Your task to perform on an android device: set the timer Image 0: 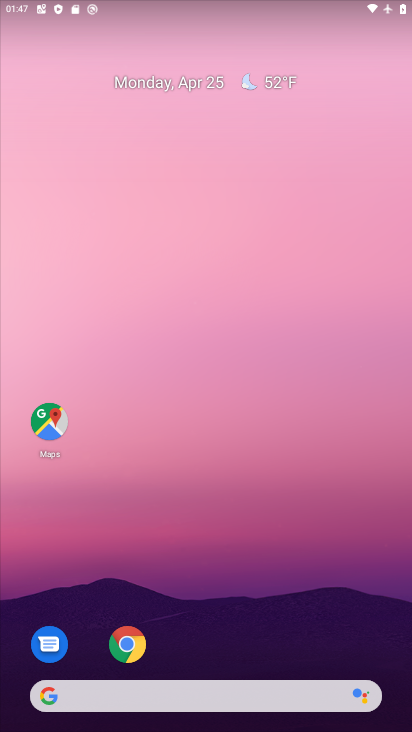
Step 0: drag from (242, 648) to (208, 235)
Your task to perform on an android device: set the timer Image 1: 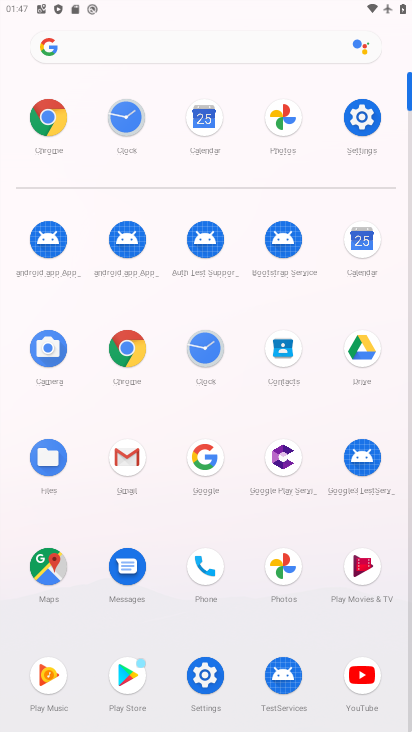
Step 1: click (351, 131)
Your task to perform on an android device: set the timer Image 2: 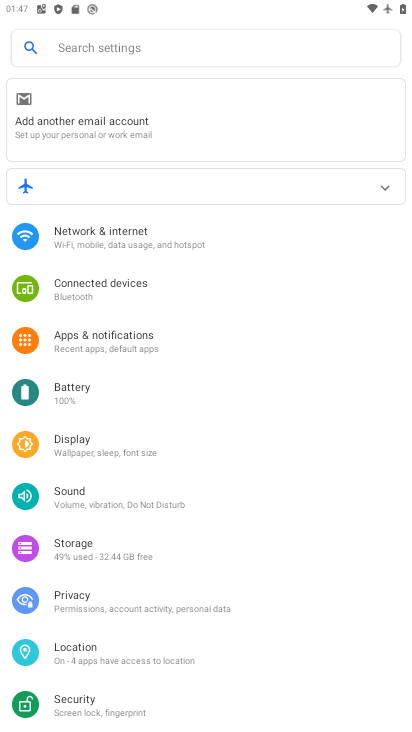
Step 2: press home button
Your task to perform on an android device: set the timer Image 3: 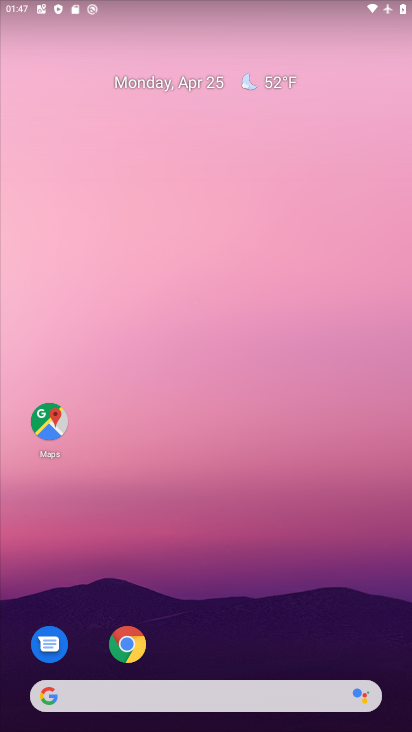
Step 3: drag from (259, 667) to (171, 38)
Your task to perform on an android device: set the timer Image 4: 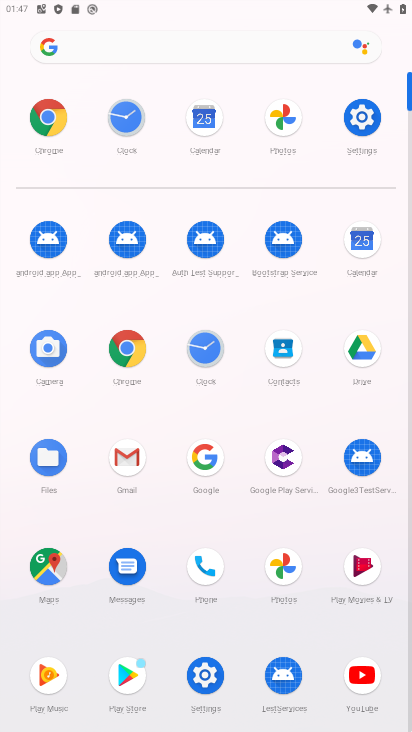
Step 4: click (123, 136)
Your task to perform on an android device: set the timer Image 5: 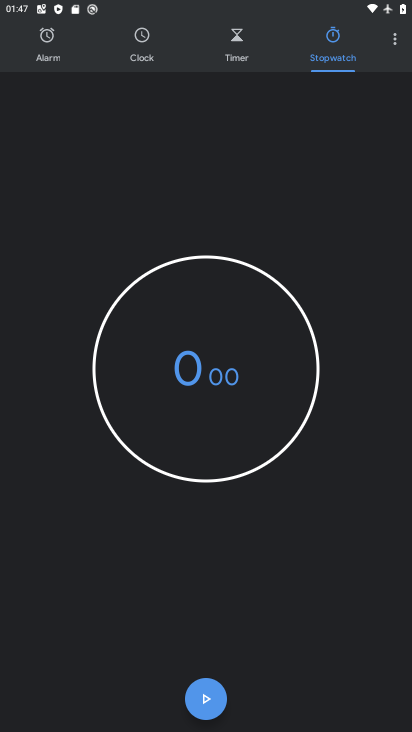
Step 5: click (236, 49)
Your task to perform on an android device: set the timer Image 6: 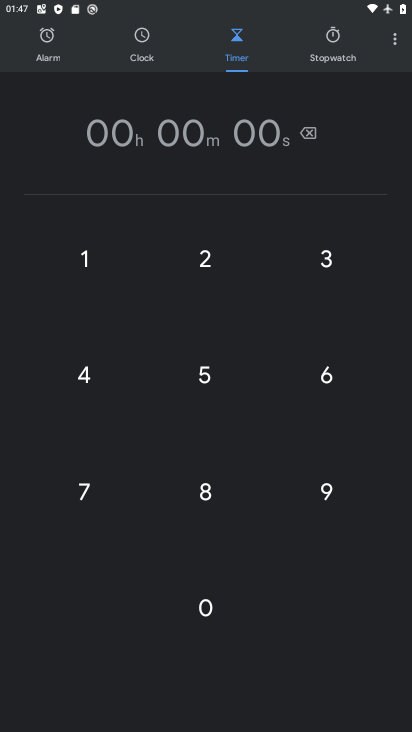
Step 6: task complete